Your task to perform on an android device: What is the recent news? Image 0: 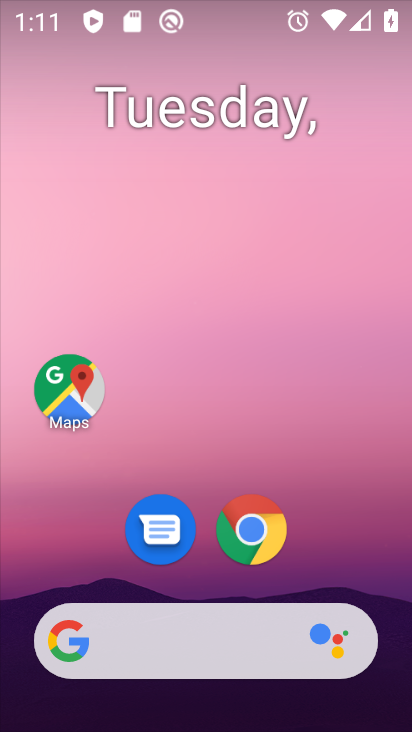
Step 0: drag from (378, 593) to (269, 69)
Your task to perform on an android device: What is the recent news? Image 1: 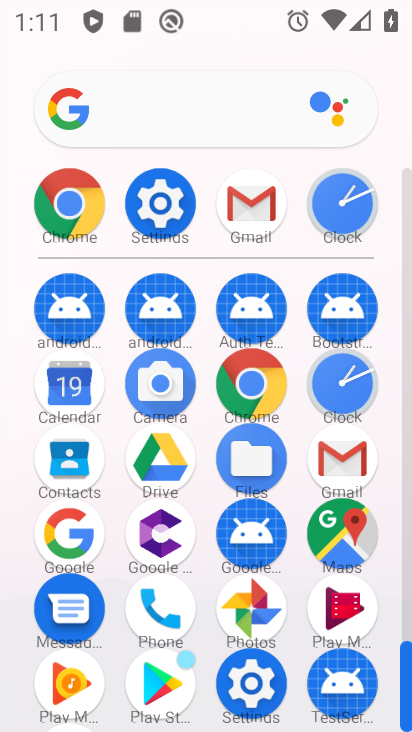
Step 1: click (261, 356)
Your task to perform on an android device: What is the recent news? Image 2: 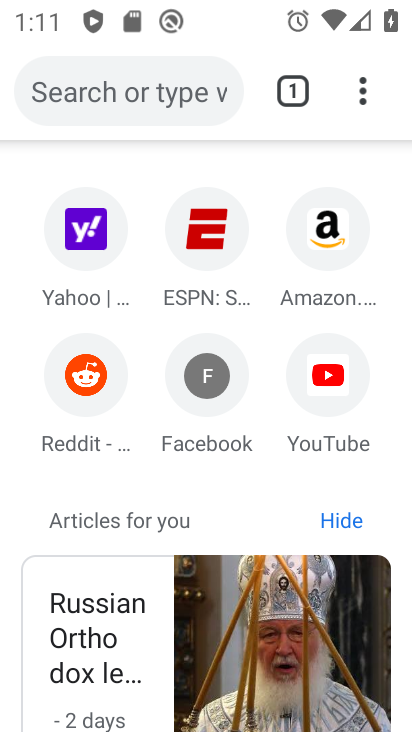
Step 2: click (91, 642)
Your task to perform on an android device: What is the recent news? Image 3: 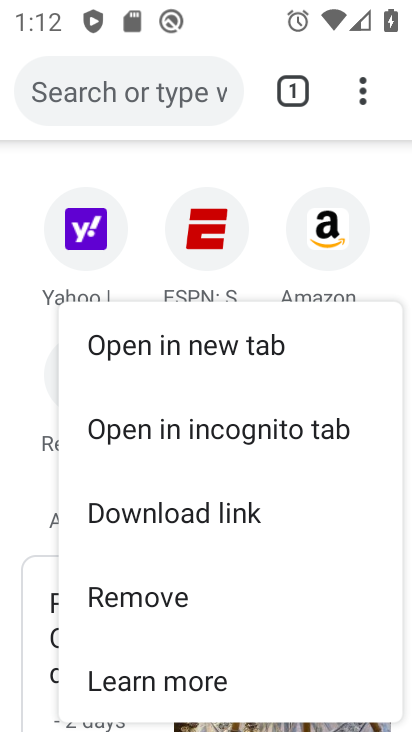
Step 3: click (51, 625)
Your task to perform on an android device: What is the recent news? Image 4: 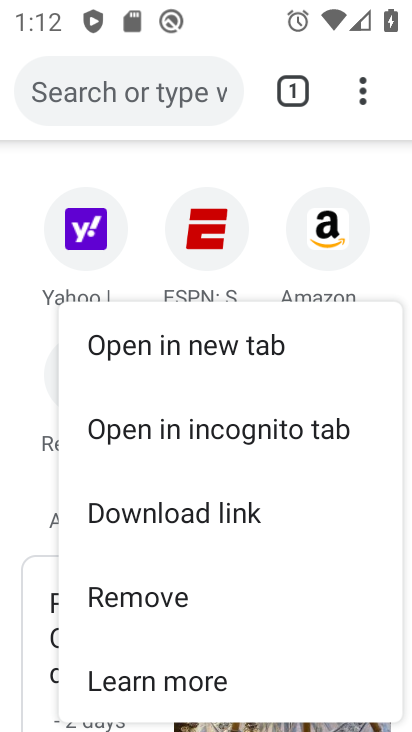
Step 4: click (46, 592)
Your task to perform on an android device: What is the recent news? Image 5: 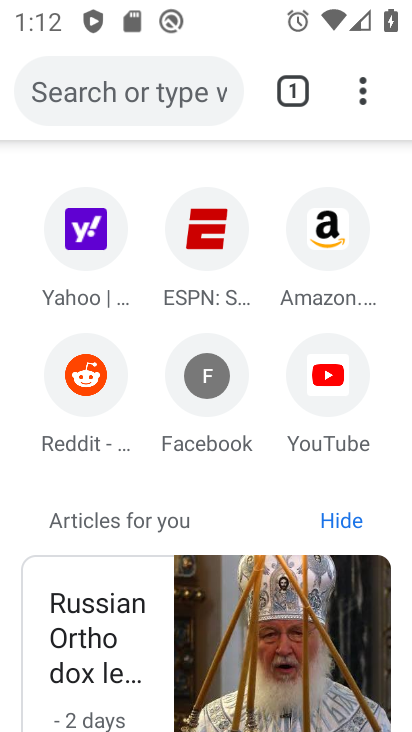
Step 5: click (46, 592)
Your task to perform on an android device: What is the recent news? Image 6: 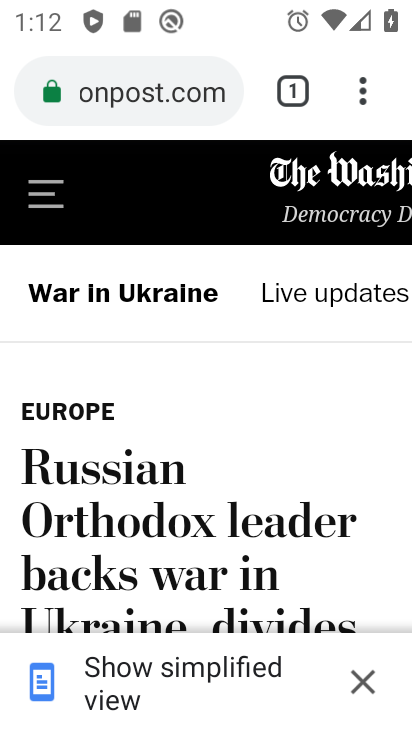
Step 6: task complete